Your task to perform on an android device: turn on showing notifications on the lock screen Image 0: 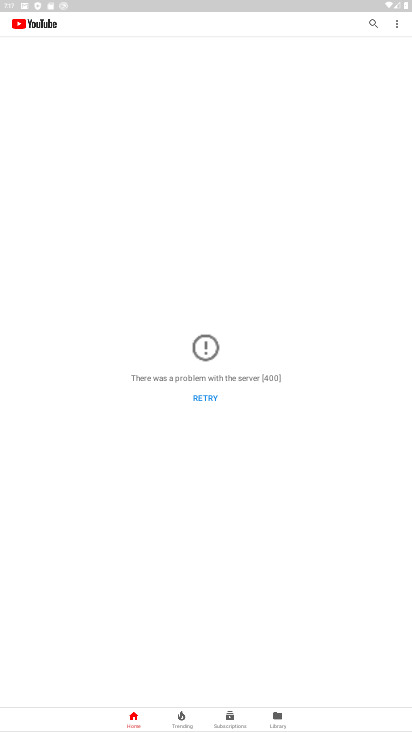
Step 0: press home button
Your task to perform on an android device: turn on showing notifications on the lock screen Image 1: 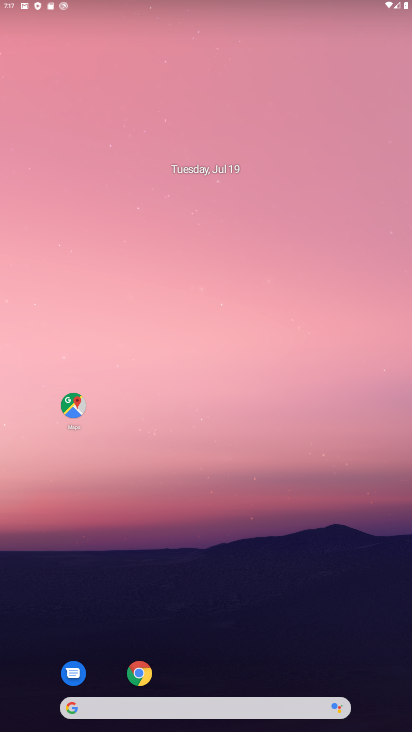
Step 1: drag from (337, 601) to (337, 33)
Your task to perform on an android device: turn on showing notifications on the lock screen Image 2: 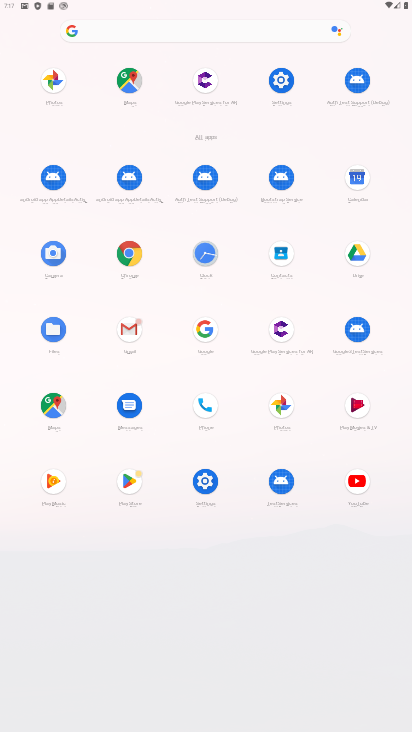
Step 2: click (285, 88)
Your task to perform on an android device: turn on showing notifications on the lock screen Image 3: 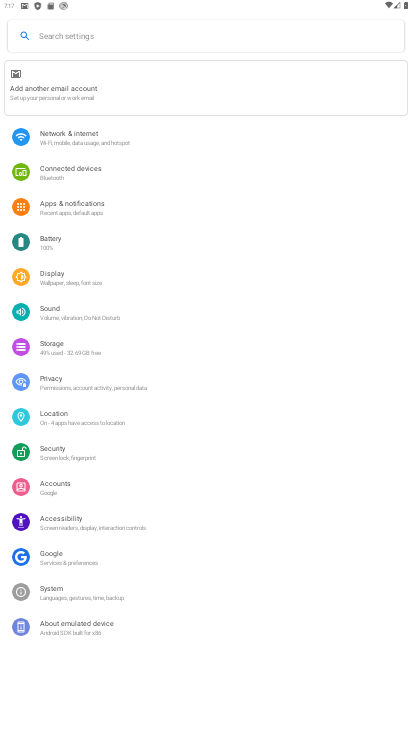
Step 3: click (74, 218)
Your task to perform on an android device: turn on showing notifications on the lock screen Image 4: 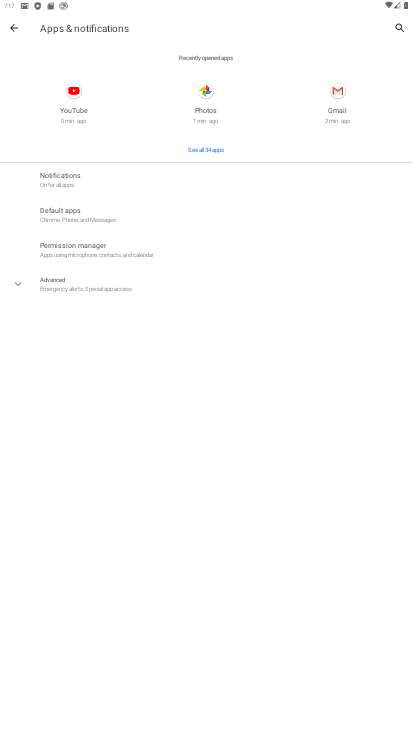
Step 4: click (48, 185)
Your task to perform on an android device: turn on showing notifications on the lock screen Image 5: 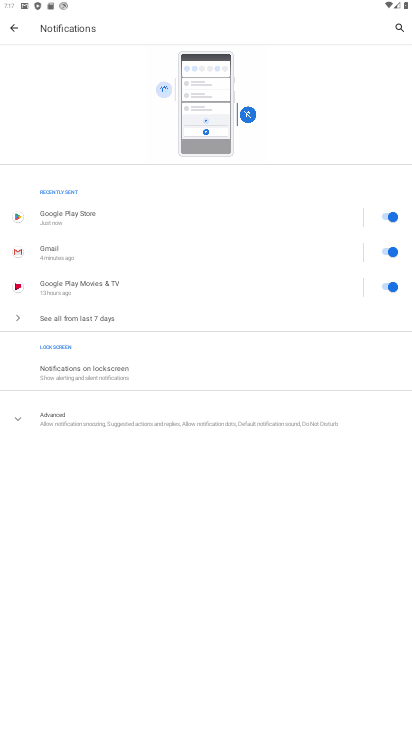
Step 5: click (130, 374)
Your task to perform on an android device: turn on showing notifications on the lock screen Image 6: 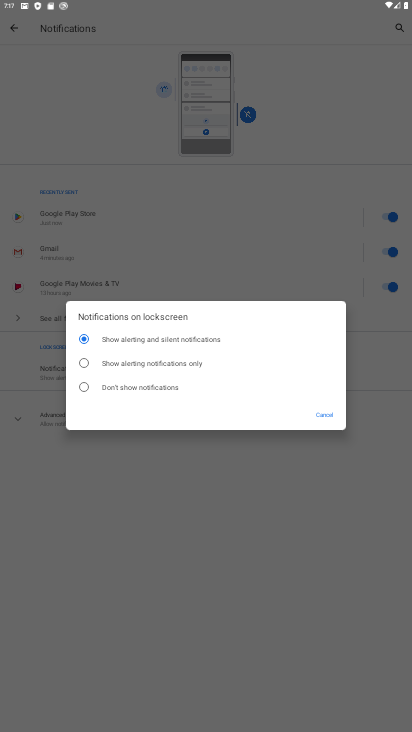
Step 6: click (215, 340)
Your task to perform on an android device: turn on showing notifications on the lock screen Image 7: 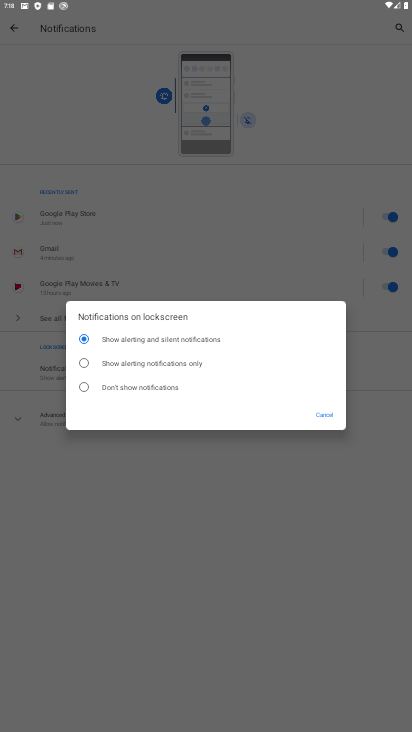
Step 7: task complete